Your task to perform on an android device: Search for pizza restaurants on Maps Image 0: 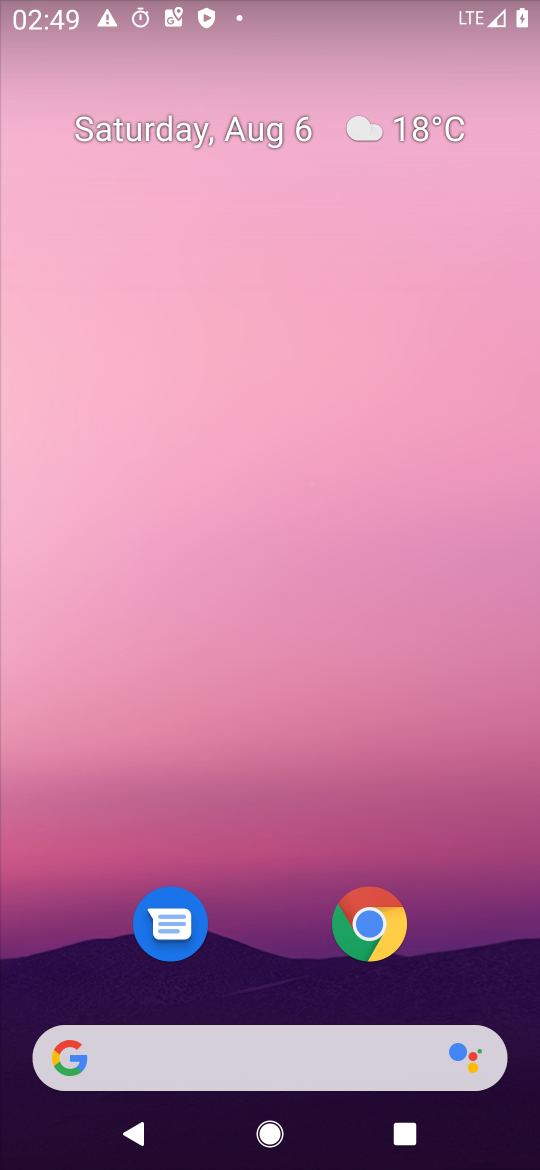
Step 0: drag from (300, 1046) to (352, 16)
Your task to perform on an android device: Search for pizza restaurants on Maps Image 1: 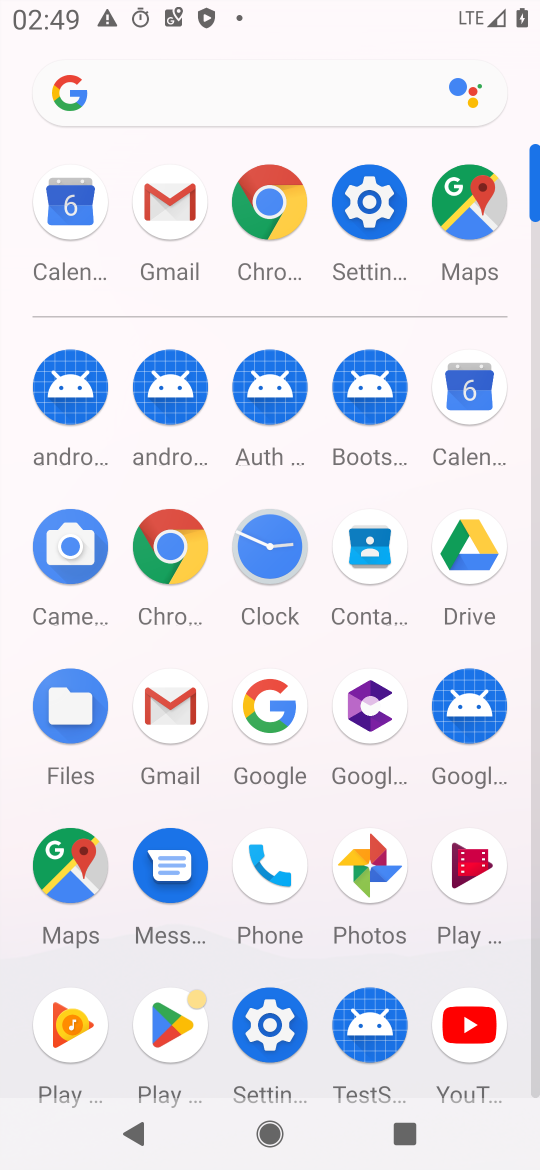
Step 1: click (67, 854)
Your task to perform on an android device: Search for pizza restaurants on Maps Image 2: 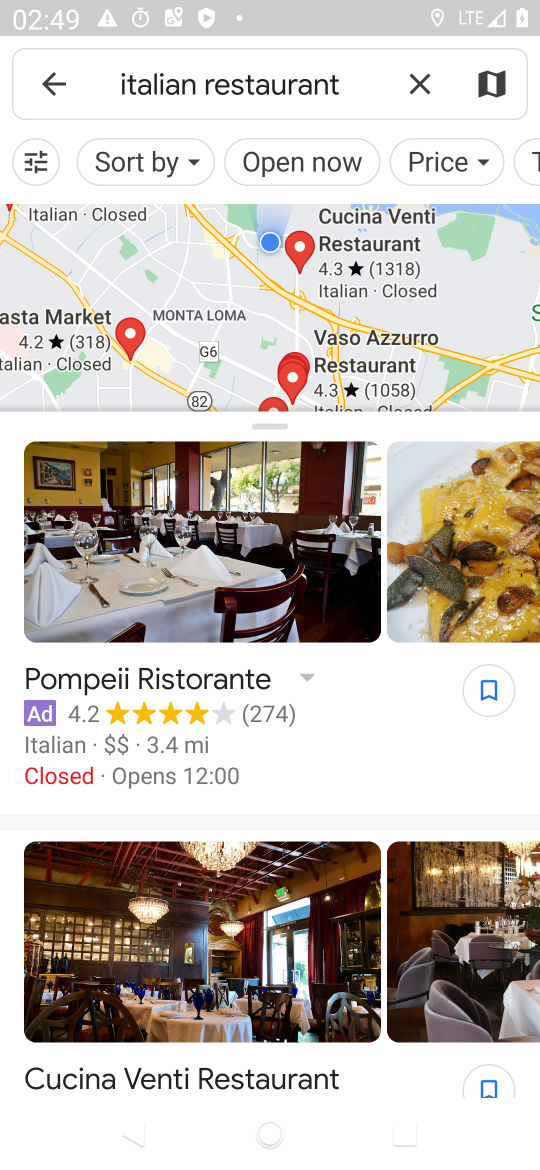
Step 2: click (413, 73)
Your task to perform on an android device: Search for pizza restaurants on Maps Image 3: 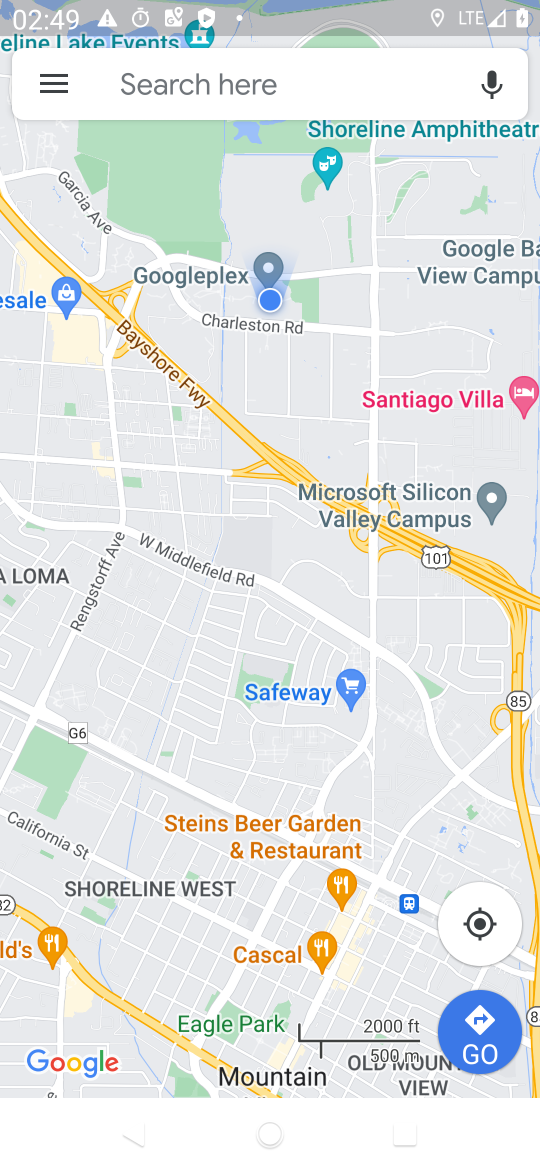
Step 3: click (413, 73)
Your task to perform on an android device: Search for pizza restaurants on Maps Image 4: 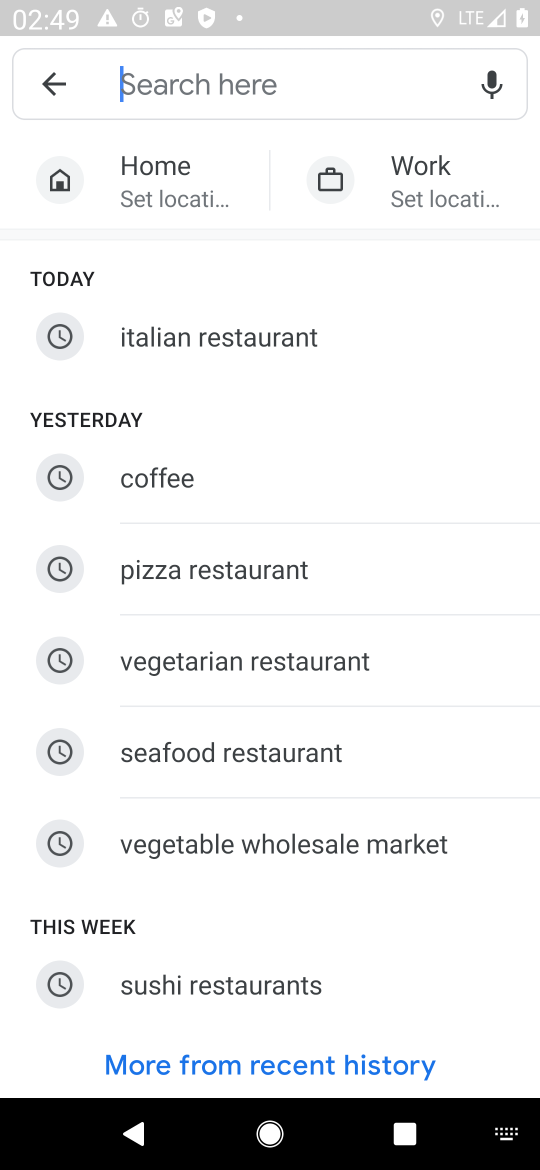
Step 4: click (254, 566)
Your task to perform on an android device: Search for pizza restaurants on Maps Image 5: 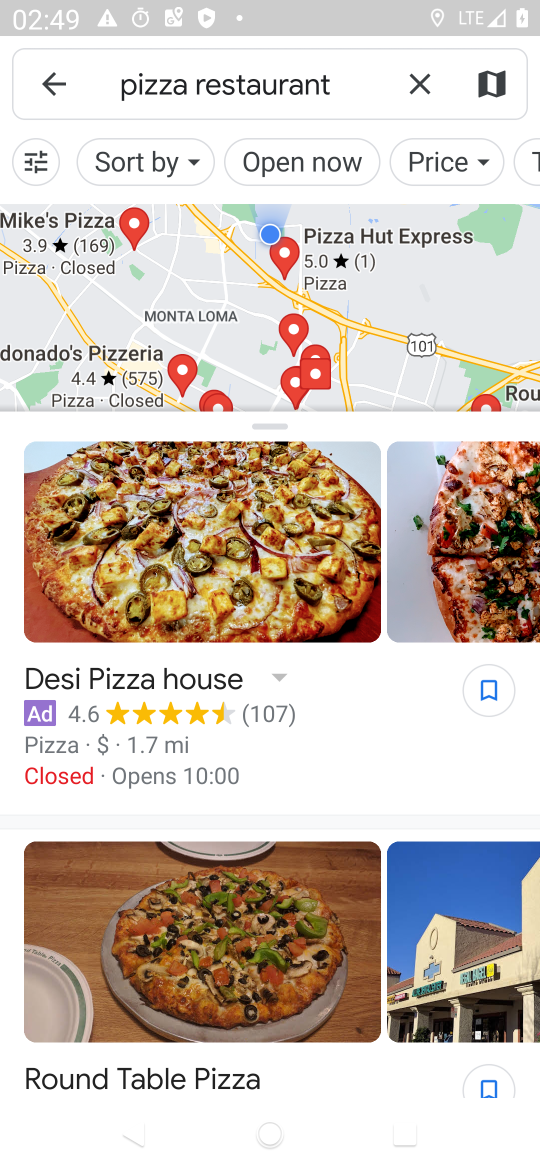
Step 5: task complete